Your task to perform on an android device: Do I have any events today? Image 0: 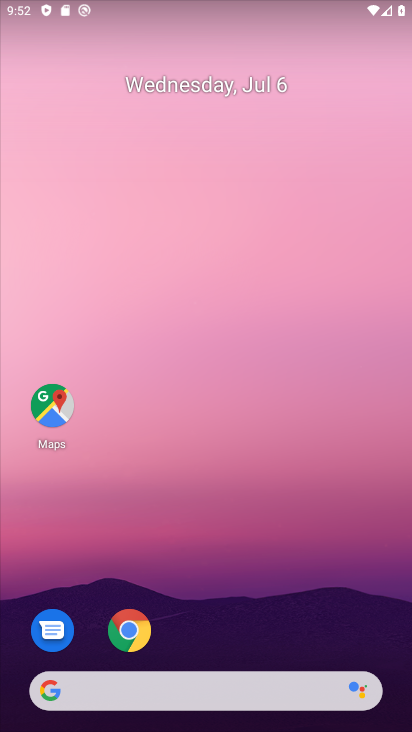
Step 0: drag from (358, 625) to (233, 14)
Your task to perform on an android device: Do I have any events today? Image 1: 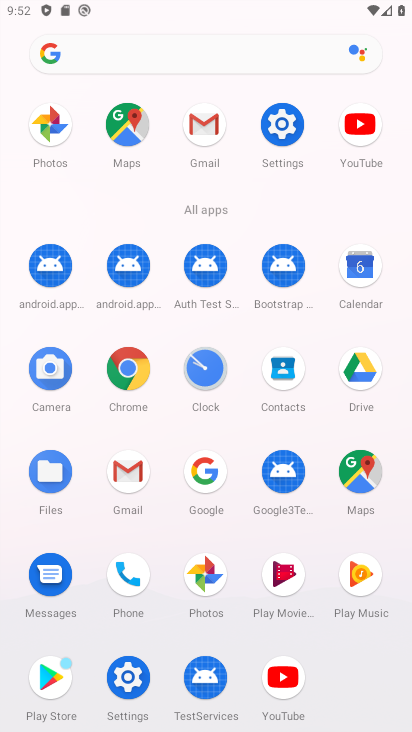
Step 1: click (364, 273)
Your task to perform on an android device: Do I have any events today? Image 2: 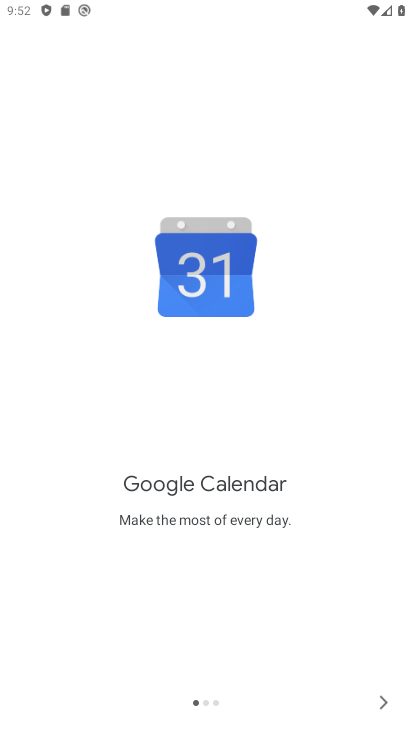
Step 2: click (378, 696)
Your task to perform on an android device: Do I have any events today? Image 3: 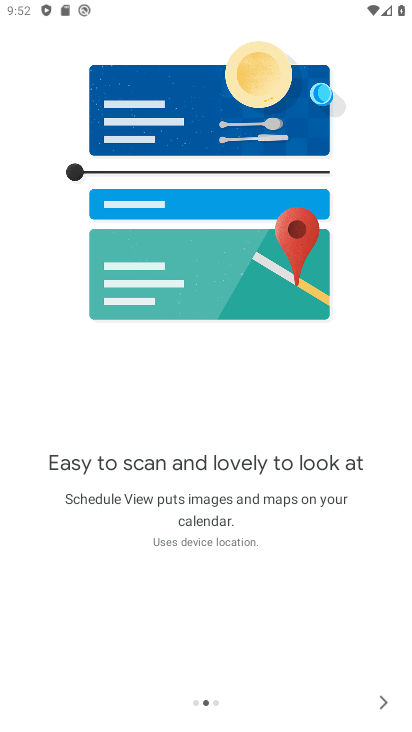
Step 3: click (376, 705)
Your task to perform on an android device: Do I have any events today? Image 4: 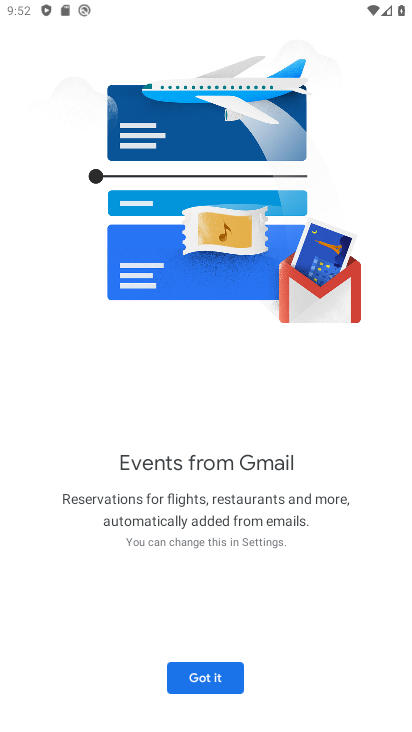
Step 4: click (176, 678)
Your task to perform on an android device: Do I have any events today? Image 5: 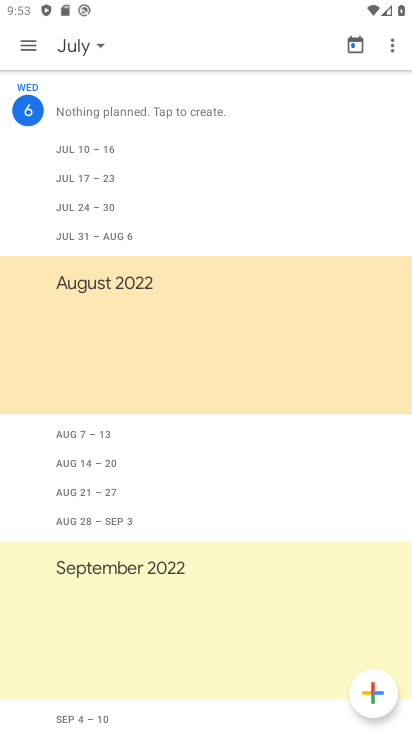
Step 5: click (23, 45)
Your task to perform on an android device: Do I have any events today? Image 6: 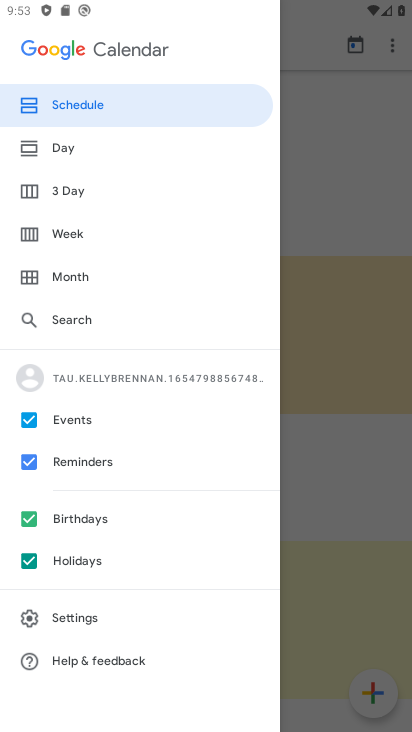
Step 6: click (27, 144)
Your task to perform on an android device: Do I have any events today? Image 7: 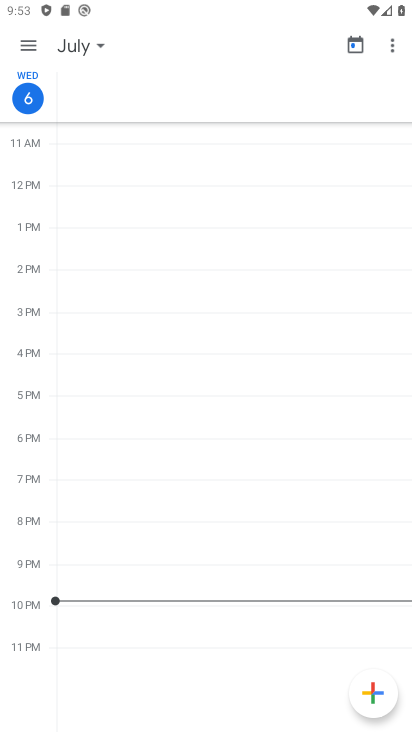
Step 7: task complete